Your task to perform on an android device: change alarm snooze length Image 0: 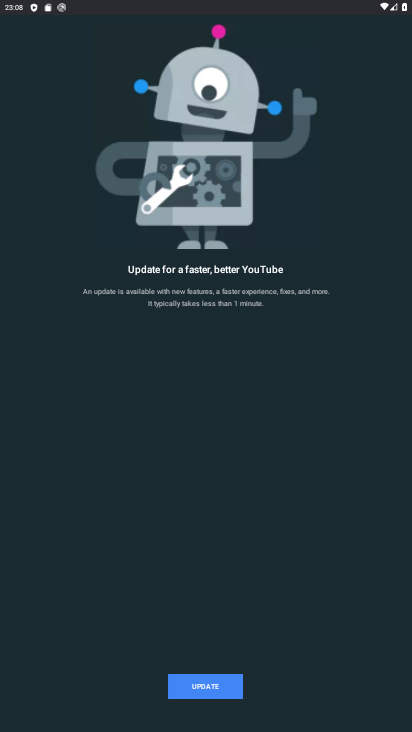
Step 0: press home button
Your task to perform on an android device: change alarm snooze length Image 1: 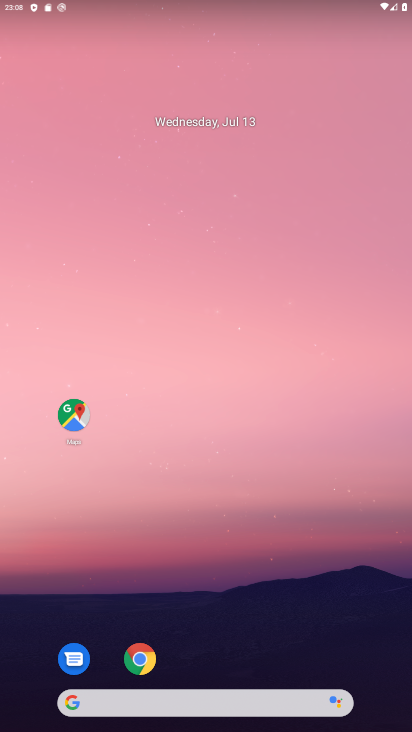
Step 1: drag from (354, 642) to (303, 61)
Your task to perform on an android device: change alarm snooze length Image 2: 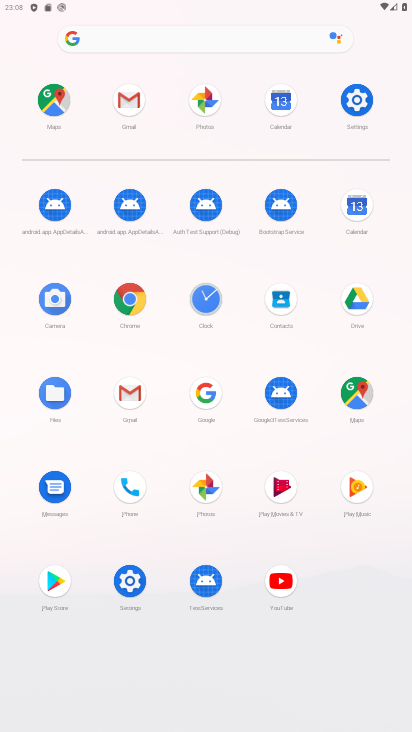
Step 2: click (205, 299)
Your task to perform on an android device: change alarm snooze length Image 3: 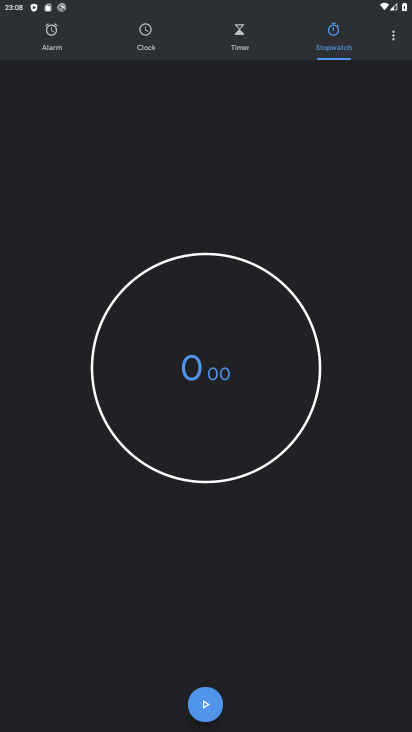
Step 3: click (388, 44)
Your task to perform on an android device: change alarm snooze length Image 4: 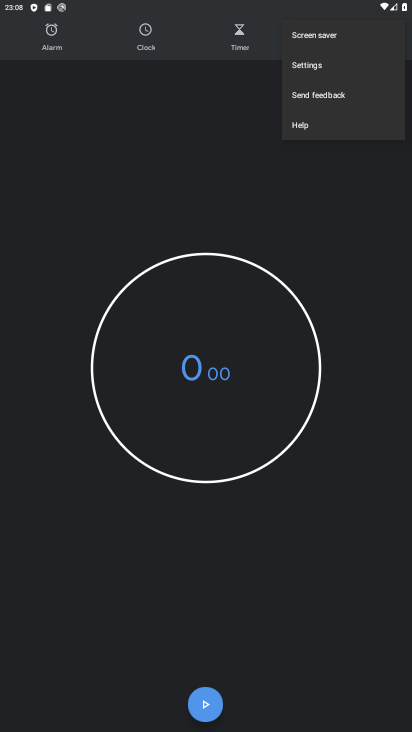
Step 4: click (311, 67)
Your task to perform on an android device: change alarm snooze length Image 5: 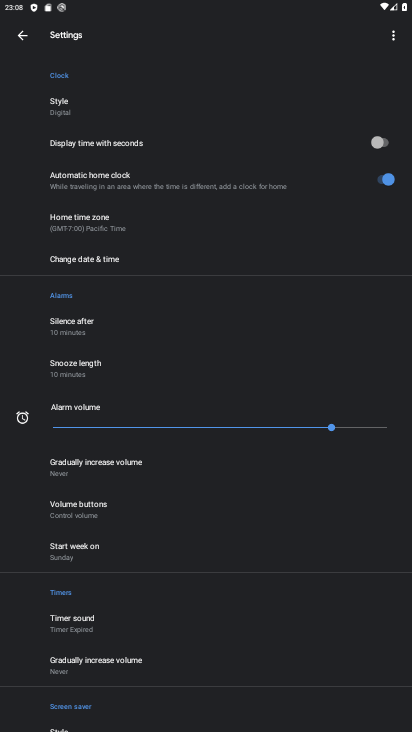
Step 5: click (81, 366)
Your task to perform on an android device: change alarm snooze length Image 6: 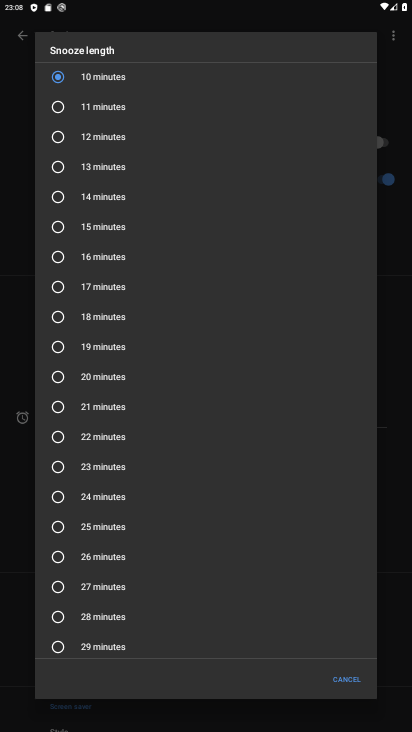
Step 6: click (56, 228)
Your task to perform on an android device: change alarm snooze length Image 7: 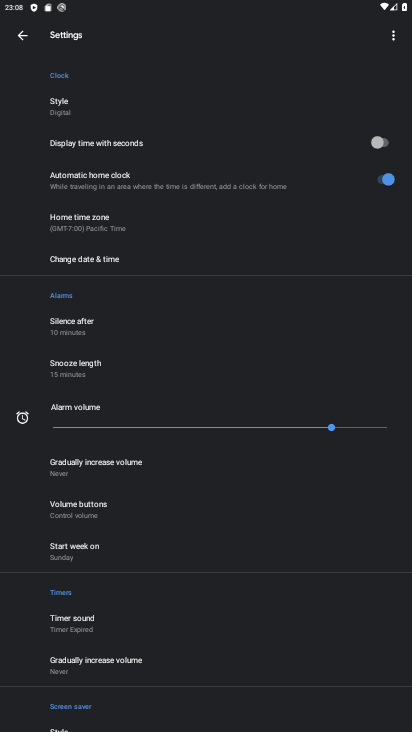
Step 7: task complete